Your task to perform on an android device: open app "Viber Messenger" Image 0: 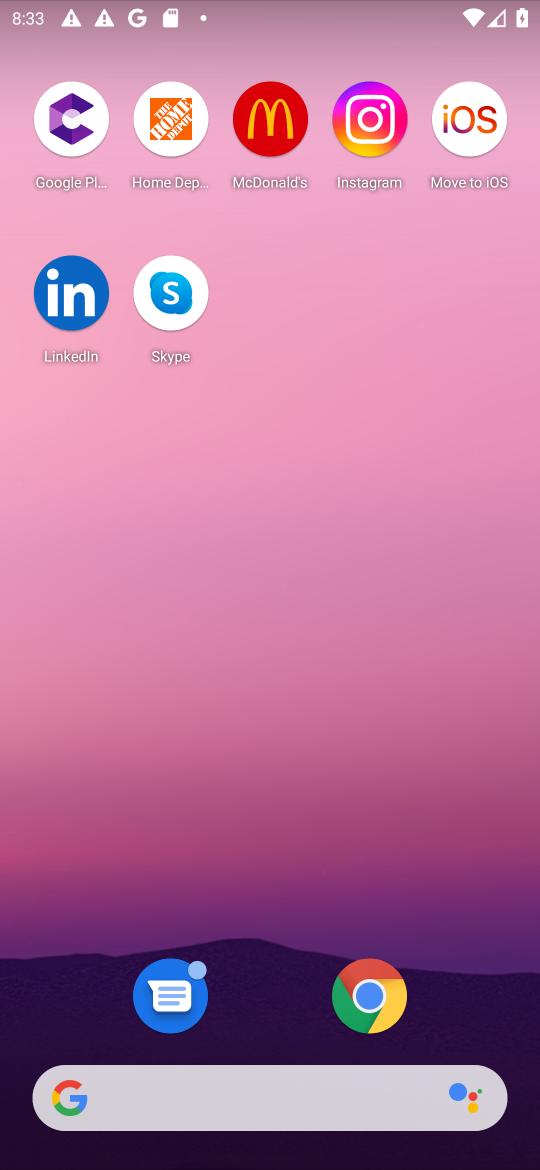
Step 0: drag from (467, 871) to (457, 142)
Your task to perform on an android device: open app "Viber Messenger" Image 1: 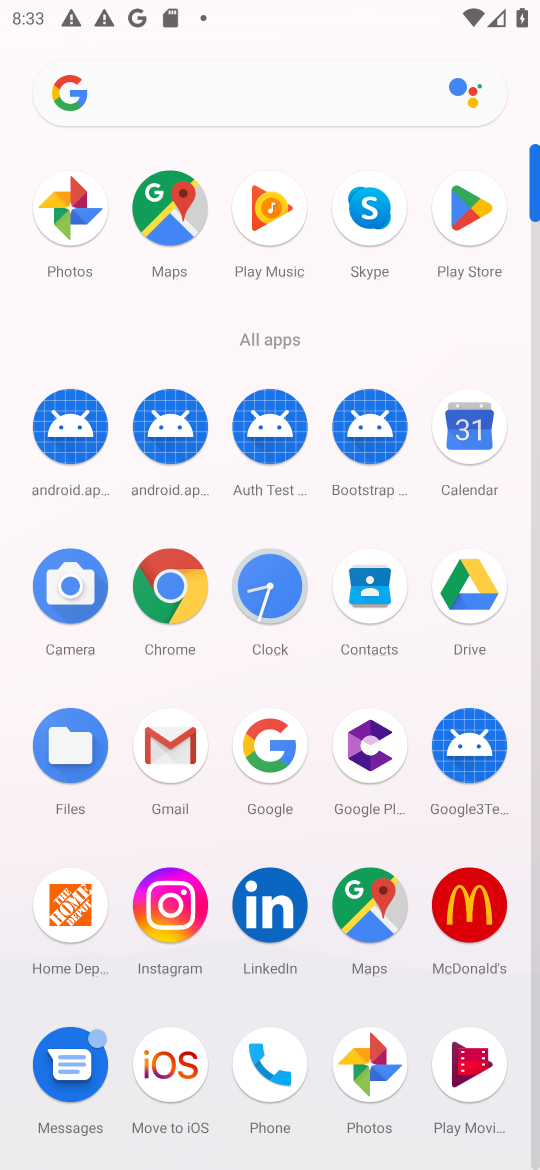
Step 1: click (468, 215)
Your task to perform on an android device: open app "Viber Messenger" Image 2: 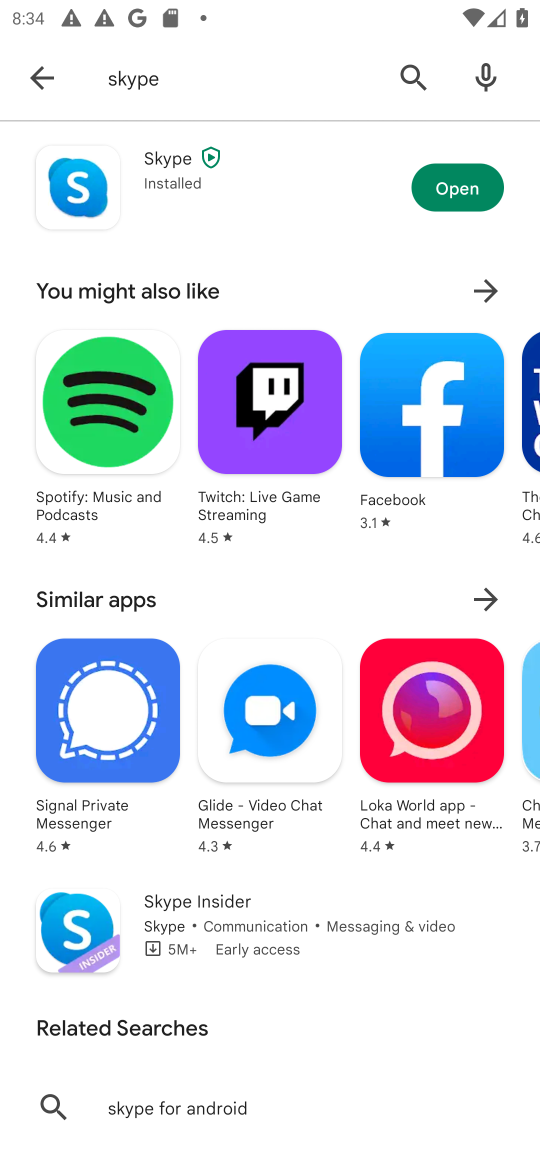
Step 2: click (282, 86)
Your task to perform on an android device: open app "Viber Messenger" Image 3: 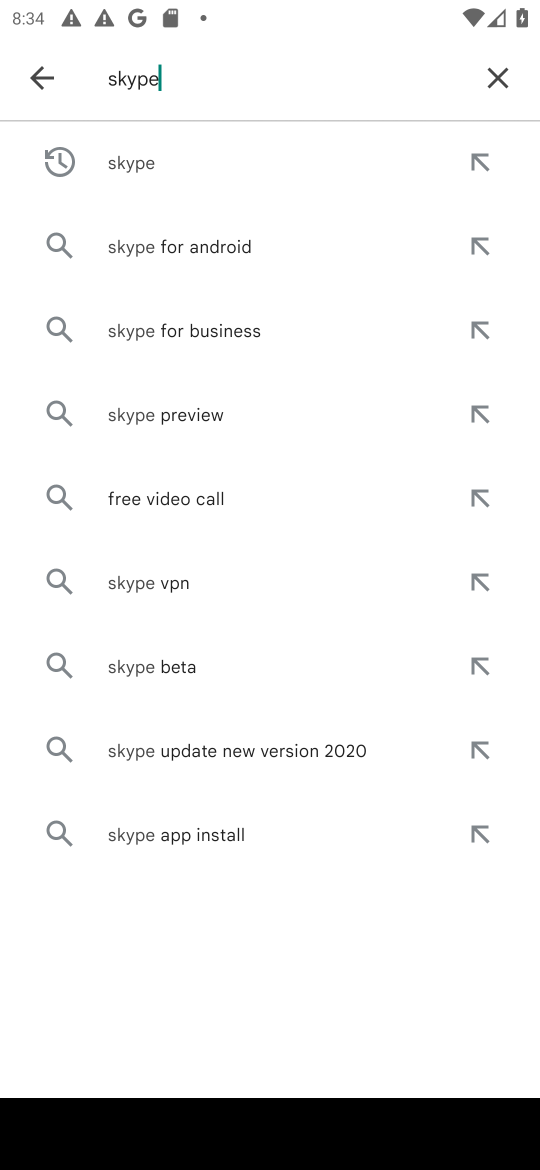
Step 3: click (495, 78)
Your task to perform on an android device: open app "Viber Messenger" Image 4: 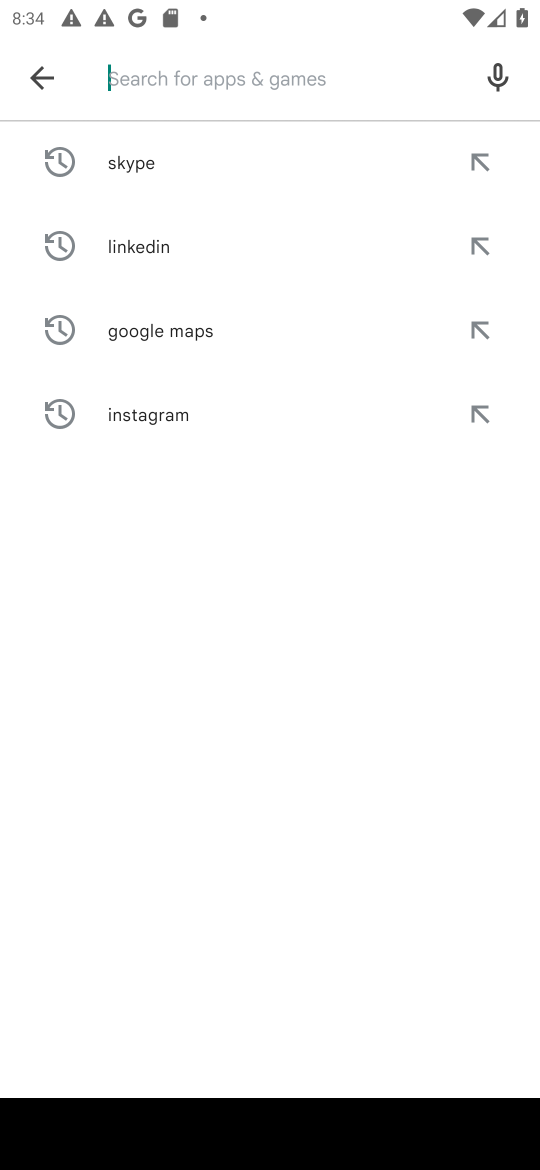
Step 4: type "viber messenger"
Your task to perform on an android device: open app "Viber Messenger" Image 5: 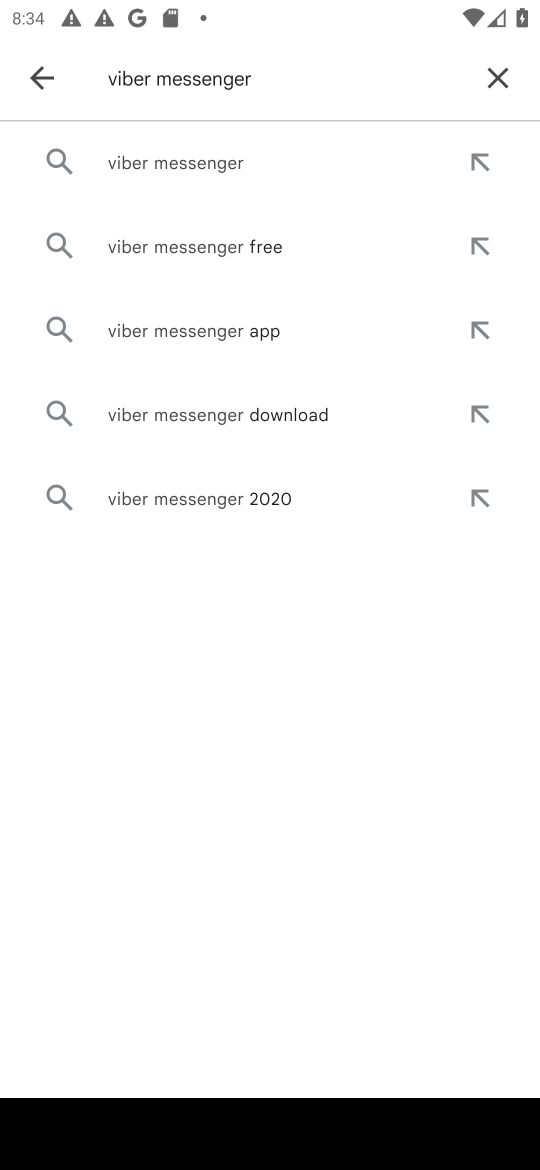
Step 5: click (233, 171)
Your task to perform on an android device: open app "Viber Messenger" Image 6: 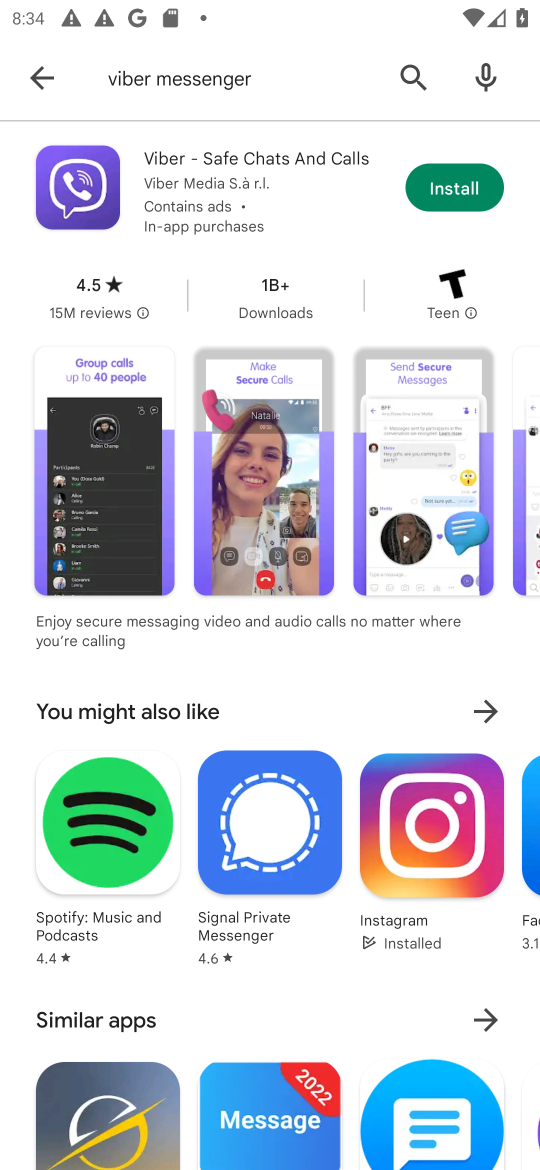
Step 6: task complete